Your task to perform on an android device: toggle pop-ups in chrome Image 0: 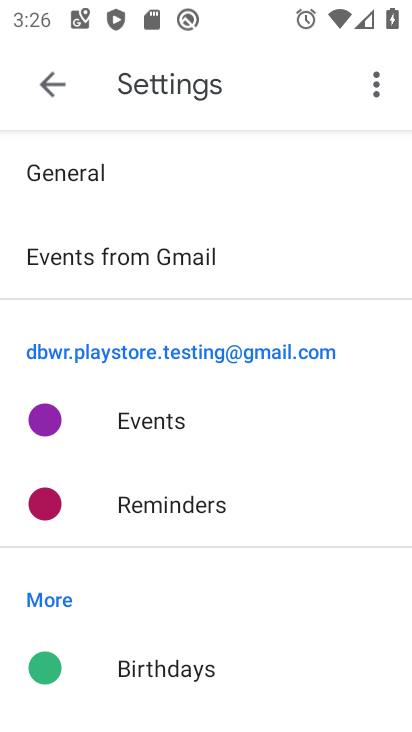
Step 0: press home button
Your task to perform on an android device: toggle pop-ups in chrome Image 1: 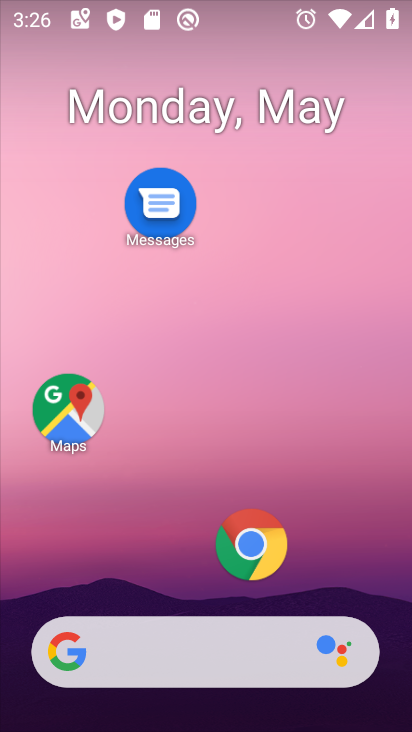
Step 1: click (241, 543)
Your task to perform on an android device: toggle pop-ups in chrome Image 2: 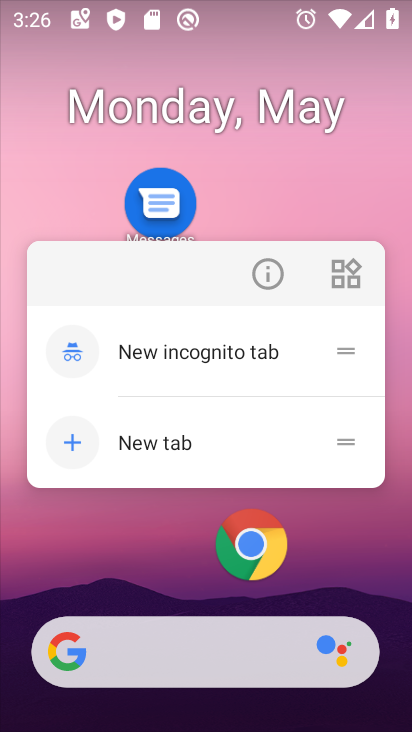
Step 2: click (241, 543)
Your task to perform on an android device: toggle pop-ups in chrome Image 3: 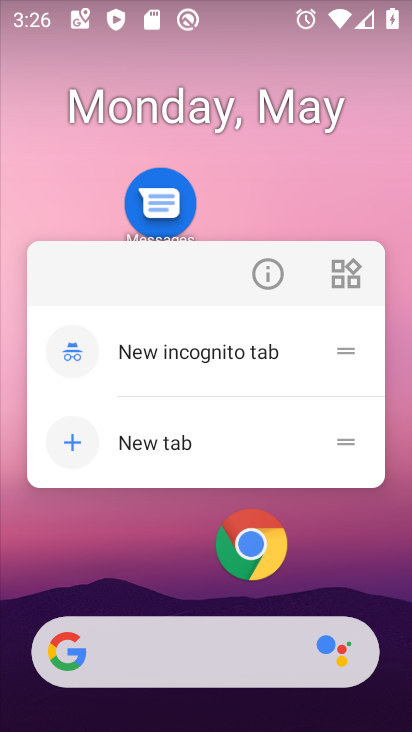
Step 3: click (241, 543)
Your task to perform on an android device: toggle pop-ups in chrome Image 4: 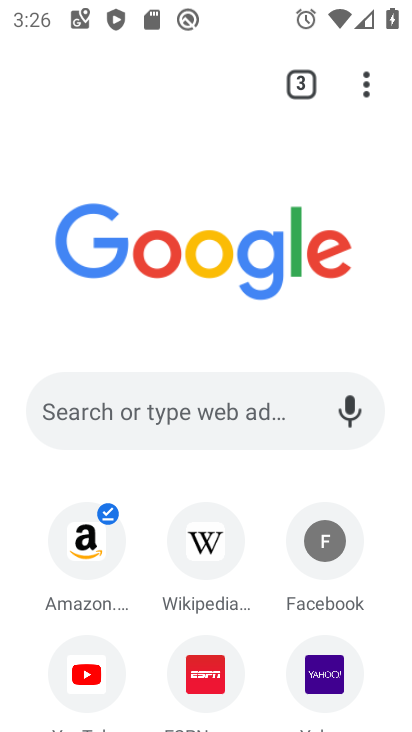
Step 4: click (367, 90)
Your task to perform on an android device: toggle pop-ups in chrome Image 5: 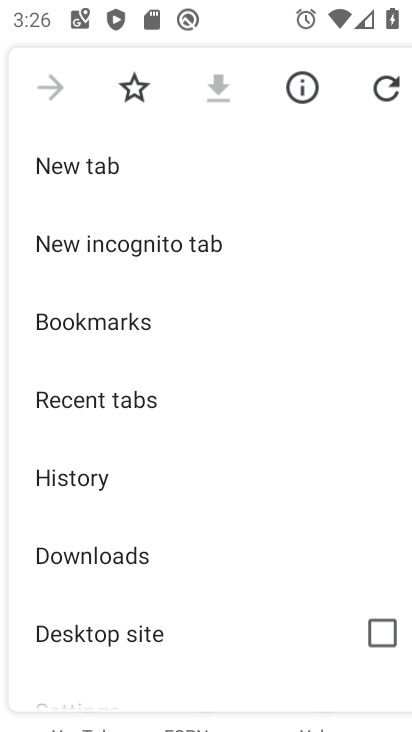
Step 5: drag from (185, 599) to (173, 345)
Your task to perform on an android device: toggle pop-ups in chrome Image 6: 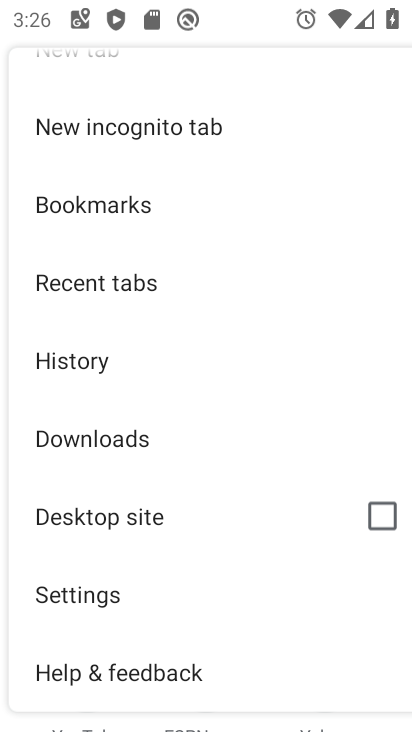
Step 6: click (157, 597)
Your task to perform on an android device: toggle pop-ups in chrome Image 7: 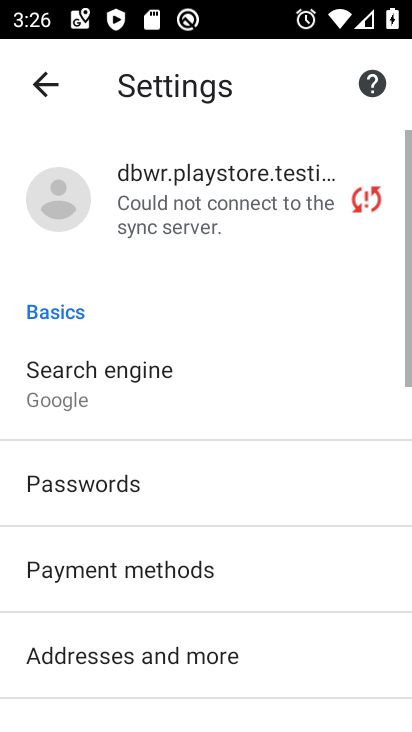
Step 7: drag from (162, 595) to (200, 352)
Your task to perform on an android device: toggle pop-ups in chrome Image 8: 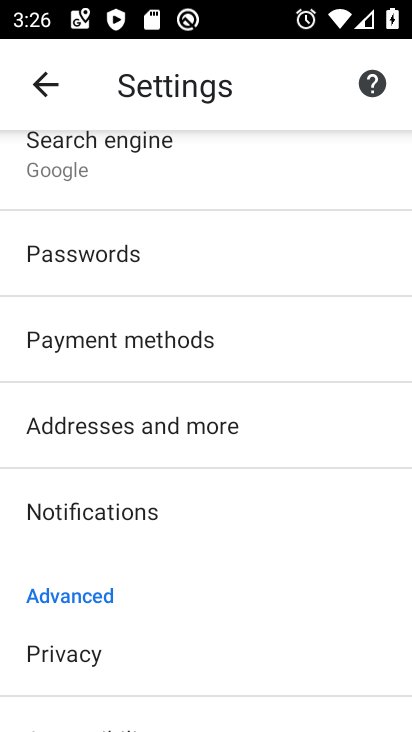
Step 8: drag from (191, 627) to (218, 359)
Your task to perform on an android device: toggle pop-ups in chrome Image 9: 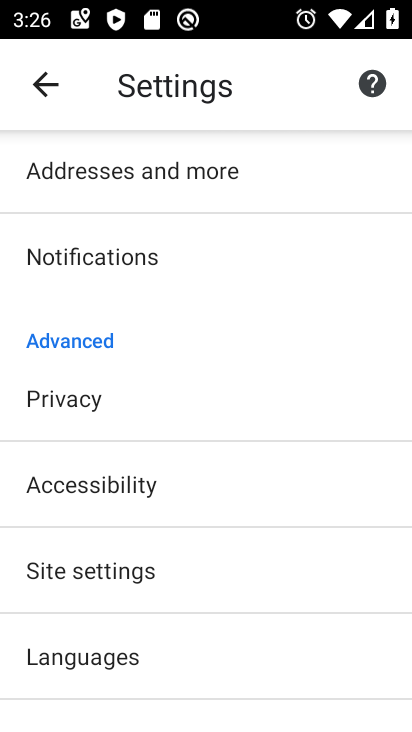
Step 9: click (210, 563)
Your task to perform on an android device: toggle pop-ups in chrome Image 10: 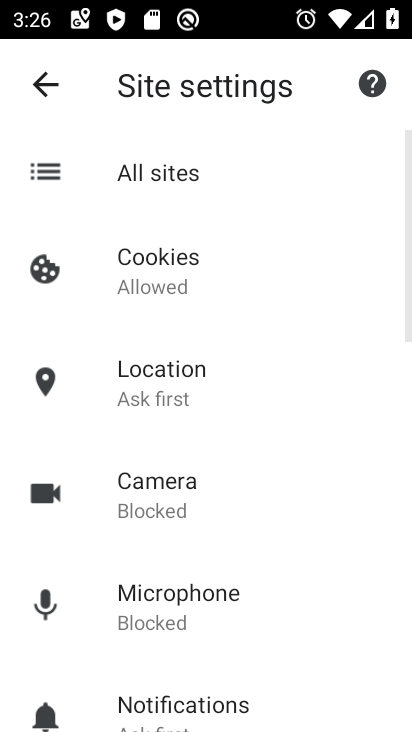
Step 10: drag from (210, 563) to (211, 359)
Your task to perform on an android device: toggle pop-ups in chrome Image 11: 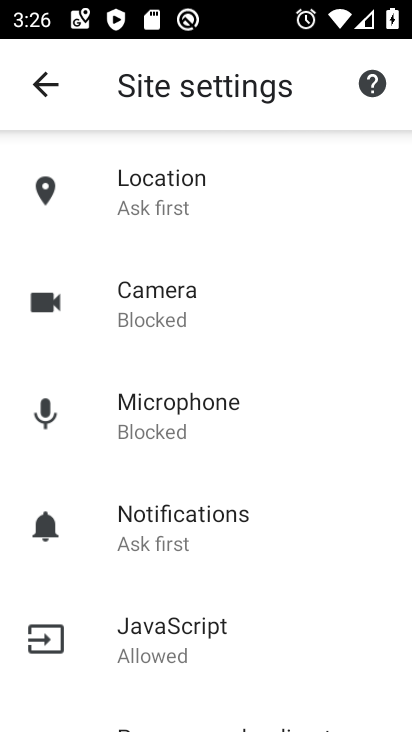
Step 11: drag from (207, 588) to (239, 341)
Your task to perform on an android device: toggle pop-ups in chrome Image 12: 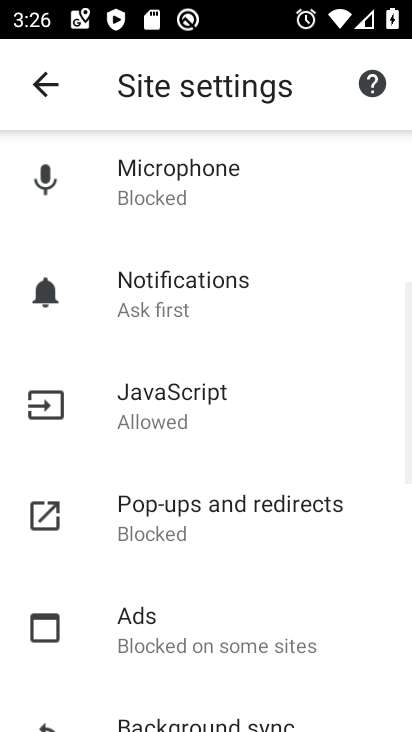
Step 12: click (227, 512)
Your task to perform on an android device: toggle pop-ups in chrome Image 13: 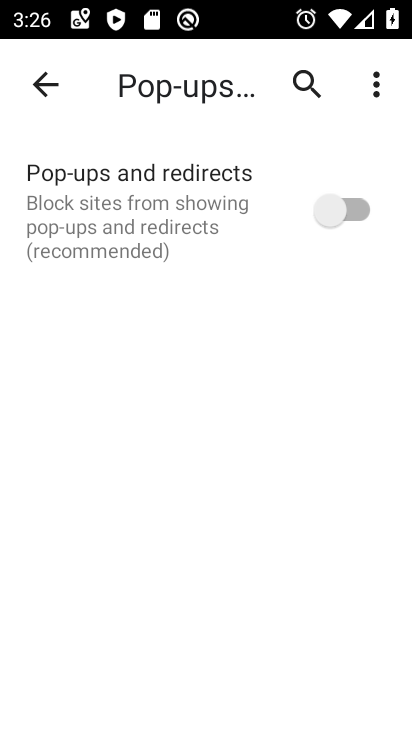
Step 13: click (349, 209)
Your task to perform on an android device: toggle pop-ups in chrome Image 14: 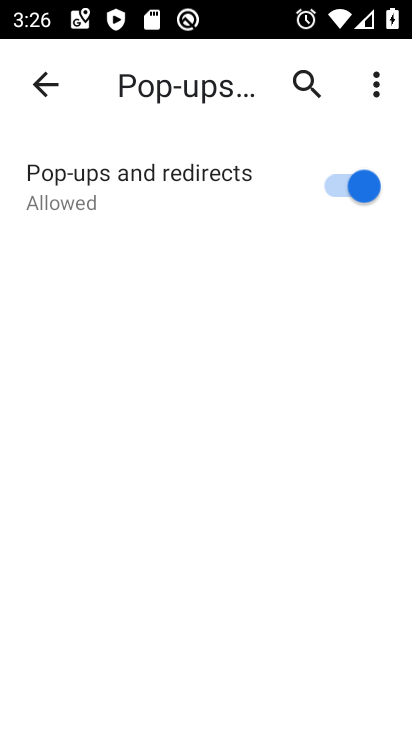
Step 14: task complete